Your task to perform on an android device: change timer sound Image 0: 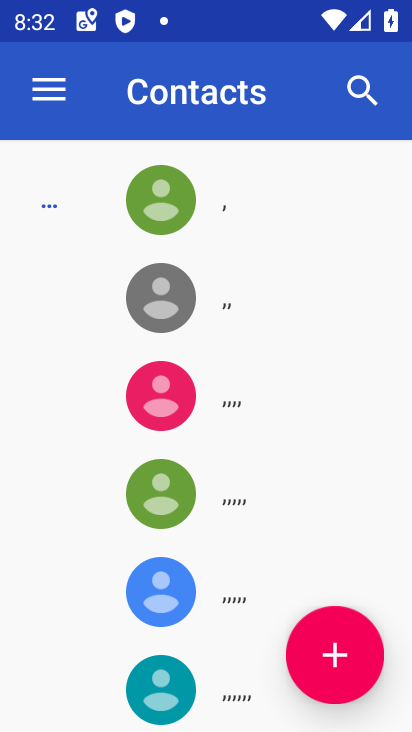
Step 0: press home button
Your task to perform on an android device: change timer sound Image 1: 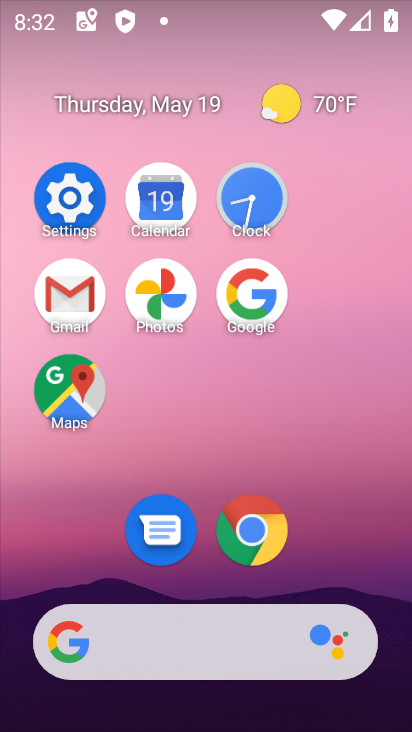
Step 1: click (245, 236)
Your task to perform on an android device: change timer sound Image 2: 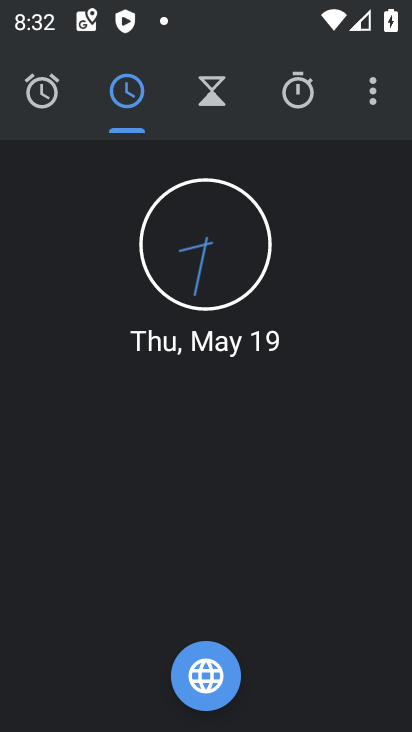
Step 2: click (362, 108)
Your task to perform on an android device: change timer sound Image 3: 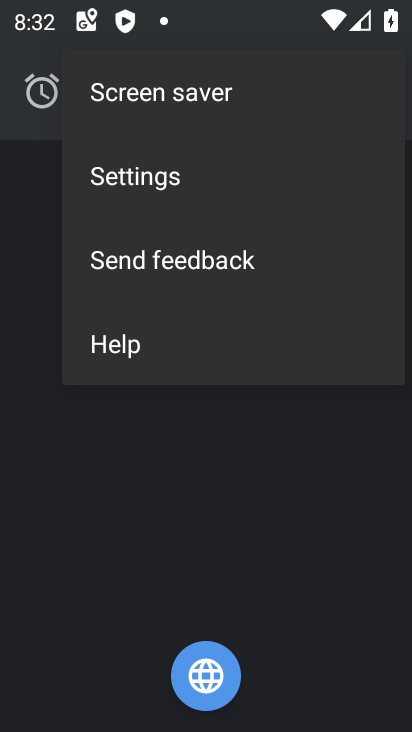
Step 3: click (248, 179)
Your task to perform on an android device: change timer sound Image 4: 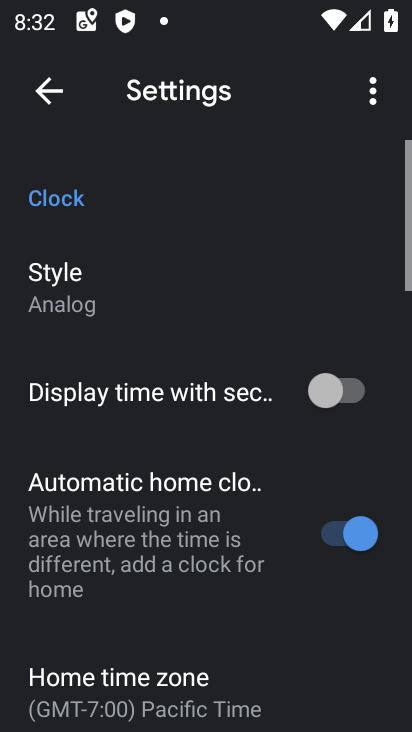
Step 4: drag from (208, 529) to (237, 166)
Your task to perform on an android device: change timer sound Image 5: 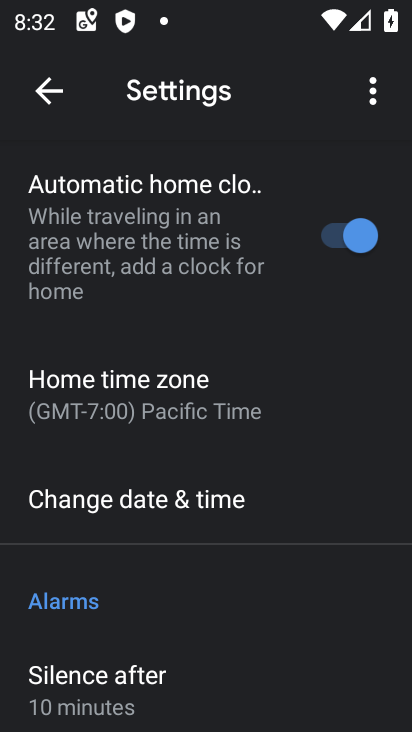
Step 5: drag from (196, 588) to (215, 244)
Your task to perform on an android device: change timer sound Image 6: 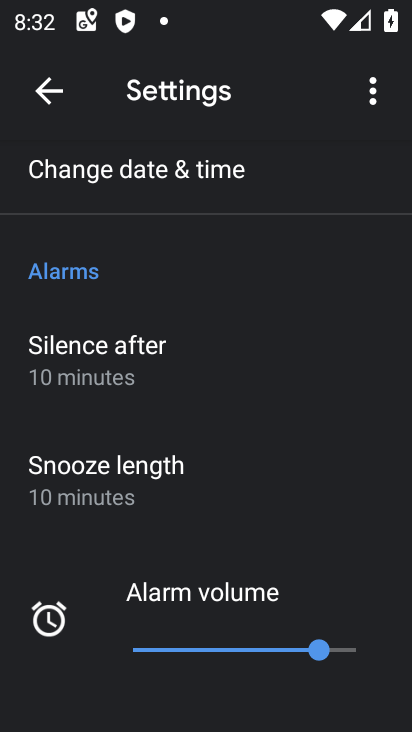
Step 6: drag from (252, 490) to (264, 153)
Your task to perform on an android device: change timer sound Image 7: 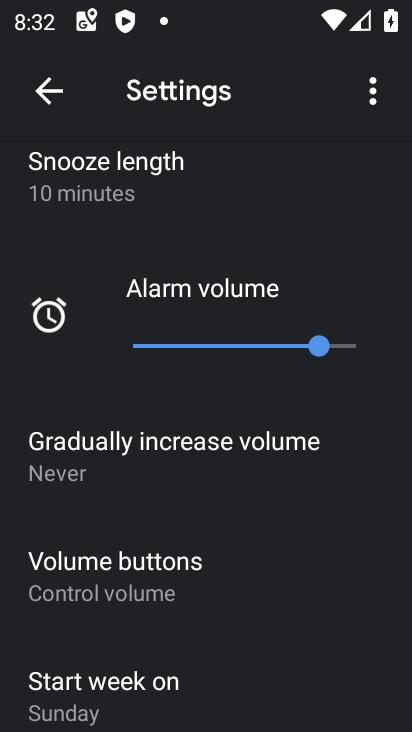
Step 7: drag from (175, 563) to (240, 236)
Your task to perform on an android device: change timer sound Image 8: 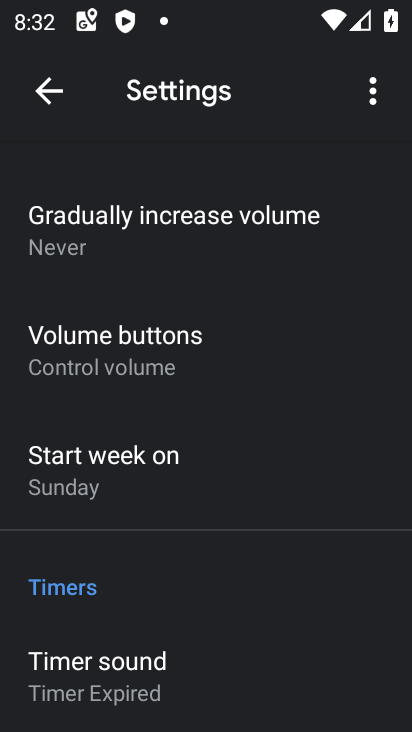
Step 8: click (148, 682)
Your task to perform on an android device: change timer sound Image 9: 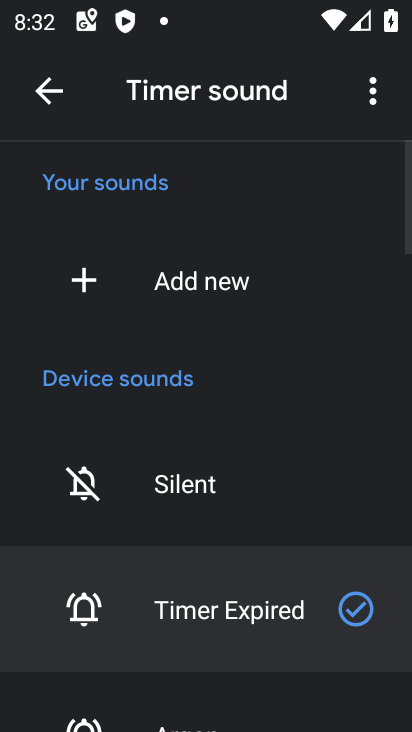
Step 9: click (166, 704)
Your task to perform on an android device: change timer sound Image 10: 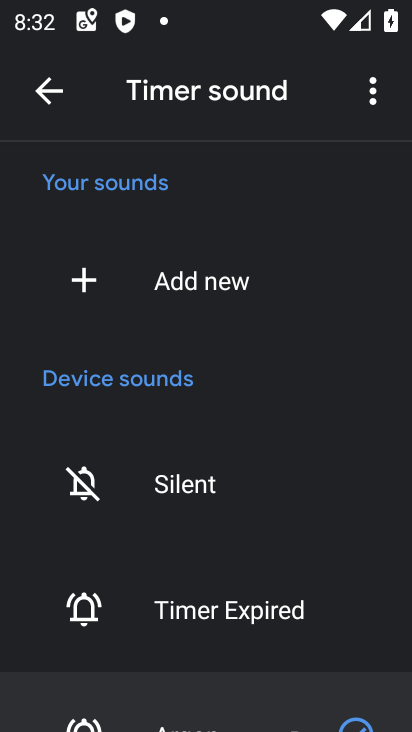
Step 10: task complete